Your task to perform on an android device: turn off translation in the chrome app Image 0: 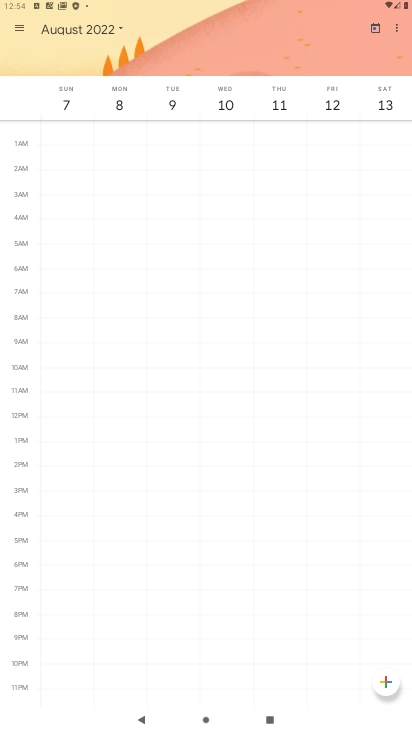
Step 0: press home button
Your task to perform on an android device: turn off translation in the chrome app Image 1: 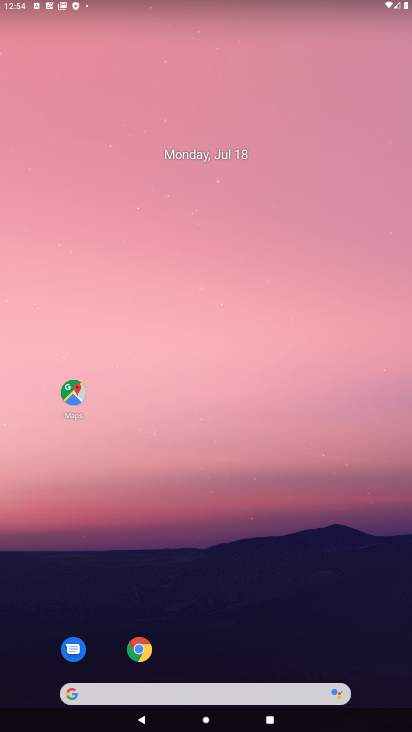
Step 1: click (139, 650)
Your task to perform on an android device: turn off translation in the chrome app Image 2: 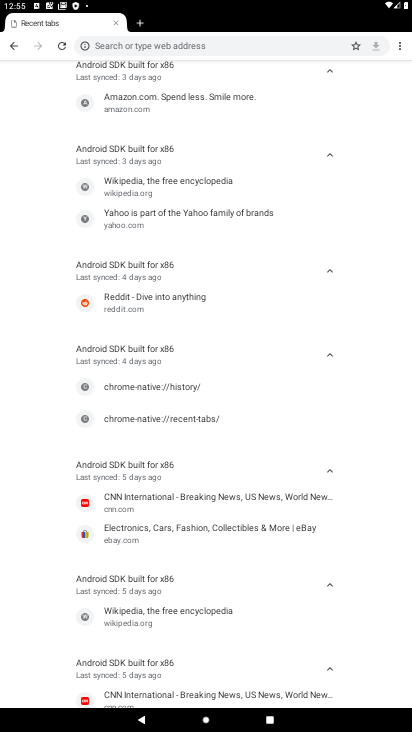
Step 2: click (399, 48)
Your task to perform on an android device: turn off translation in the chrome app Image 3: 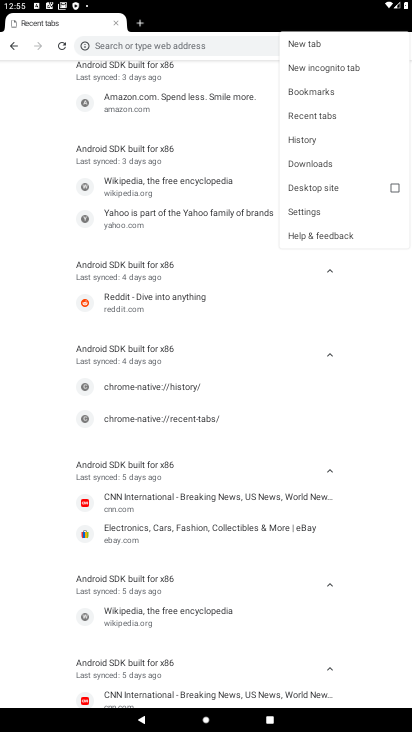
Step 3: click (311, 212)
Your task to perform on an android device: turn off translation in the chrome app Image 4: 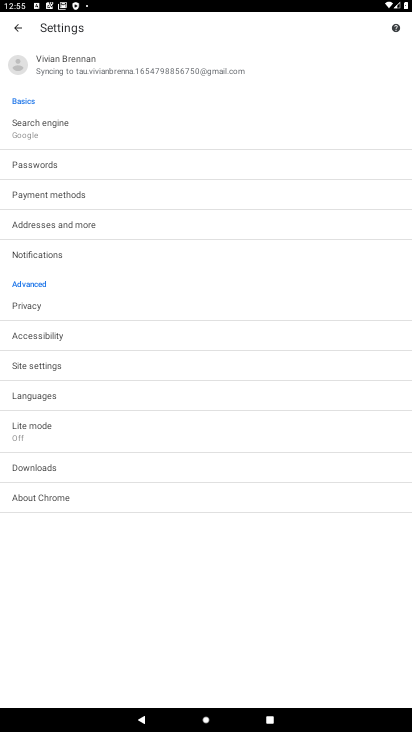
Step 4: click (31, 394)
Your task to perform on an android device: turn off translation in the chrome app Image 5: 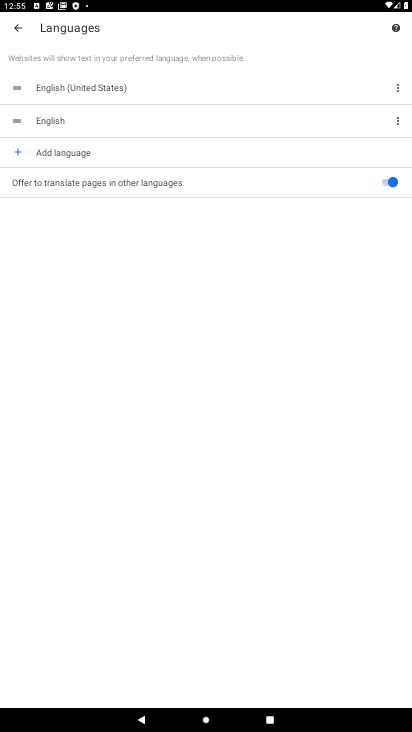
Step 5: click (384, 182)
Your task to perform on an android device: turn off translation in the chrome app Image 6: 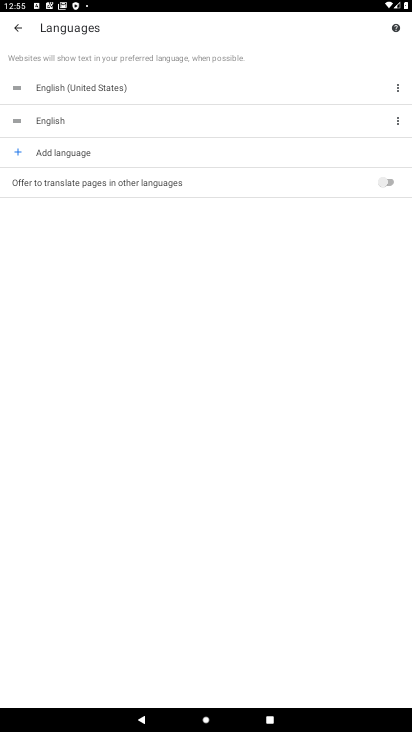
Step 6: task complete